Your task to perform on an android device: manage bookmarks in the chrome app Image 0: 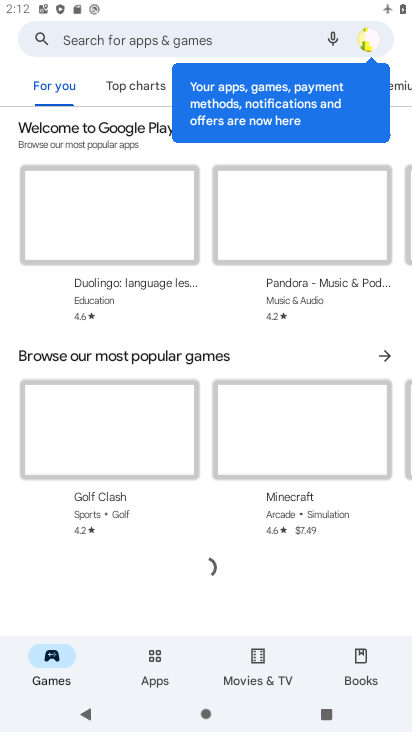
Step 0: click (148, 613)
Your task to perform on an android device: manage bookmarks in the chrome app Image 1: 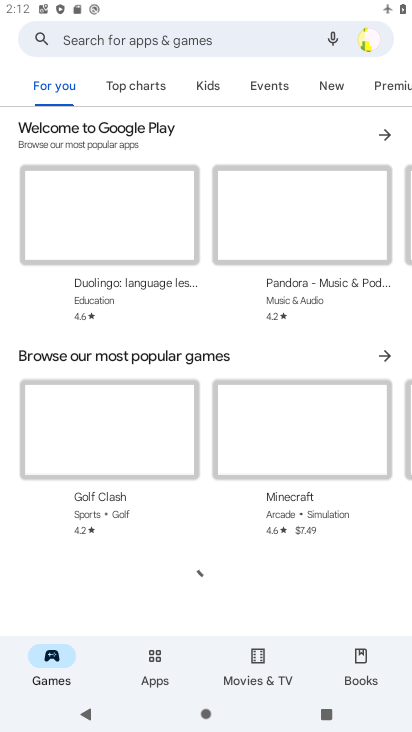
Step 1: press home button
Your task to perform on an android device: manage bookmarks in the chrome app Image 2: 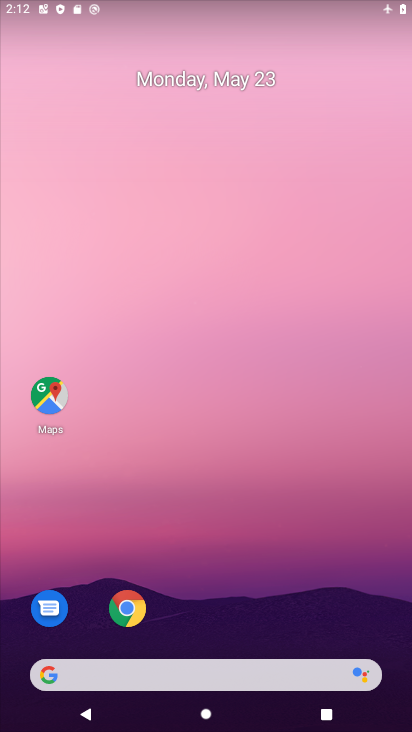
Step 2: drag from (208, 648) to (174, 111)
Your task to perform on an android device: manage bookmarks in the chrome app Image 3: 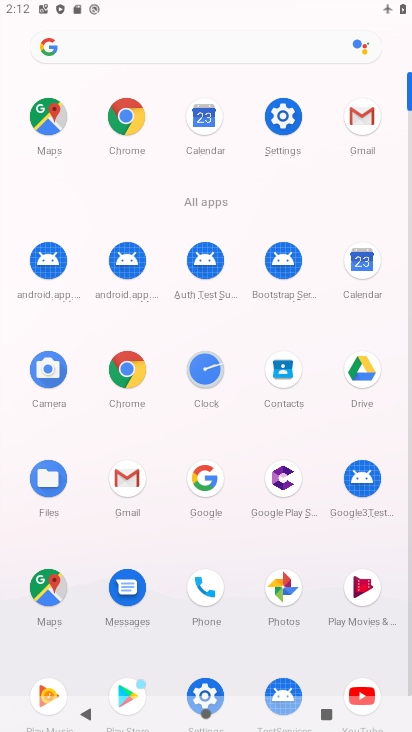
Step 3: click (140, 368)
Your task to perform on an android device: manage bookmarks in the chrome app Image 4: 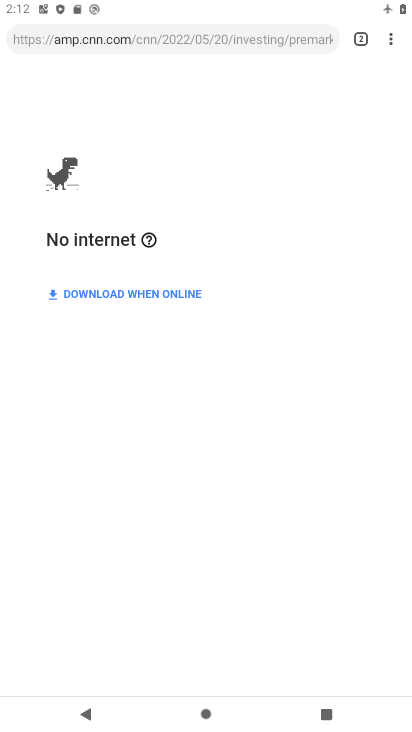
Step 4: task complete